Your task to perform on an android device: turn off smart reply in the gmail app Image 0: 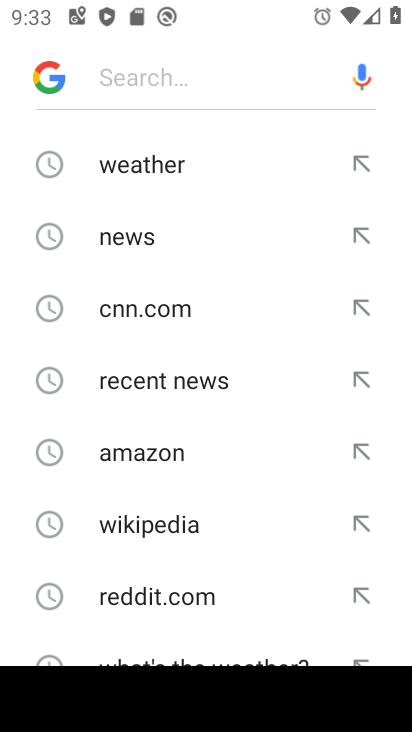
Step 0: press home button
Your task to perform on an android device: turn off smart reply in the gmail app Image 1: 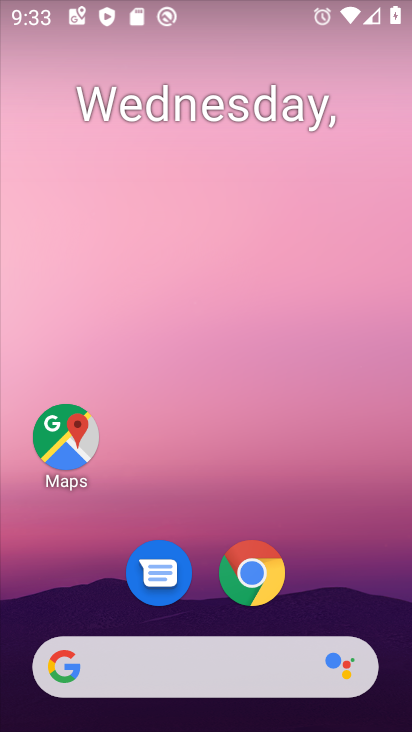
Step 1: drag from (355, 610) to (356, 232)
Your task to perform on an android device: turn off smart reply in the gmail app Image 2: 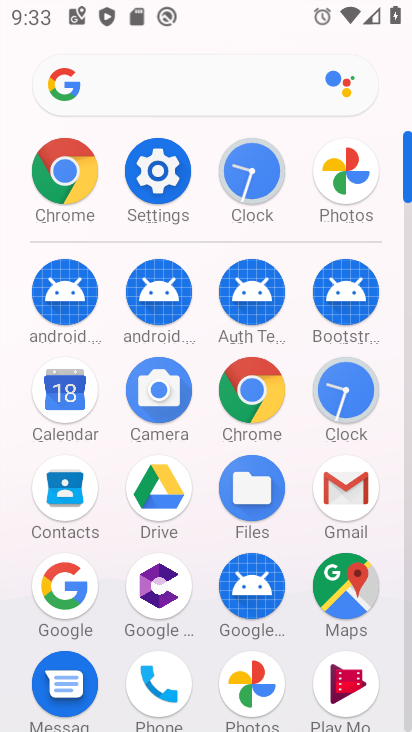
Step 2: drag from (344, 615) to (374, 204)
Your task to perform on an android device: turn off smart reply in the gmail app Image 3: 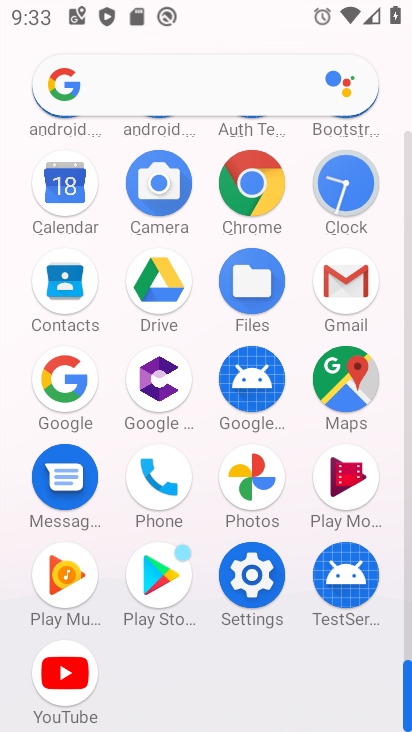
Step 3: click (343, 302)
Your task to perform on an android device: turn off smart reply in the gmail app Image 4: 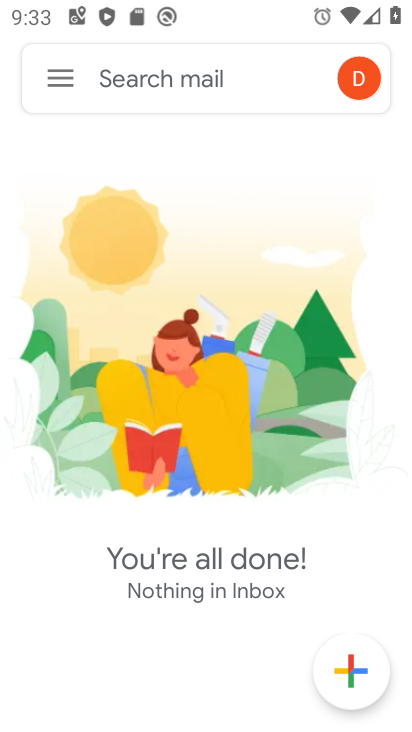
Step 4: click (72, 77)
Your task to perform on an android device: turn off smart reply in the gmail app Image 5: 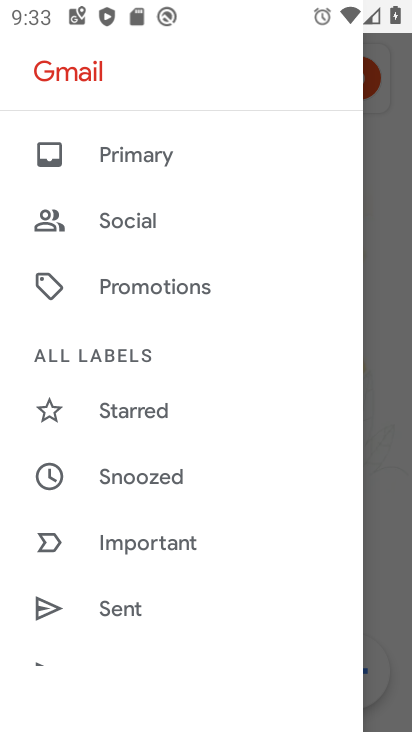
Step 5: drag from (152, 591) to (202, 294)
Your task to perform on an android device: turn off smart reply in the gmail app Image 6: 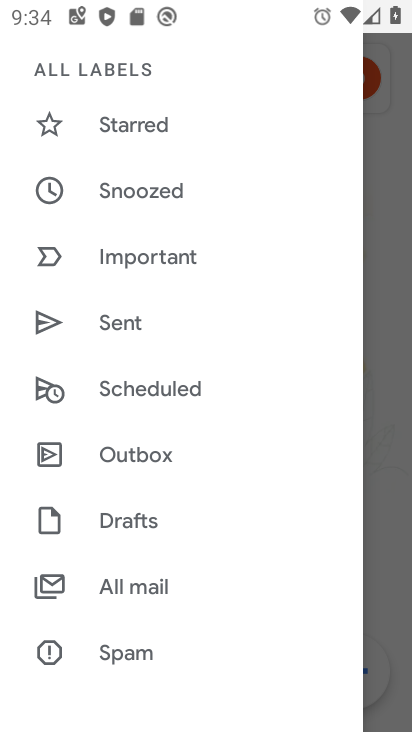
Step 6: drag from (193, 553) to (215, 302)
Your task to perform on an android device: turn off smart reply in the gmail app Image 7: 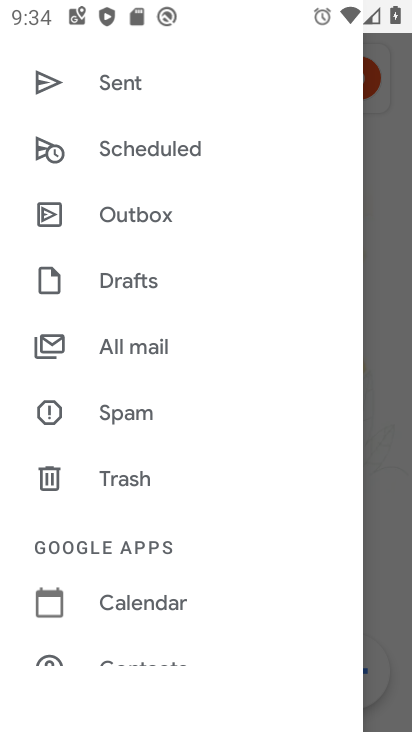
Step 7: drag from (254, 461) to (291, 234)
Your task to perform on an android device: turn off smart reply in the gmail app Image 8: 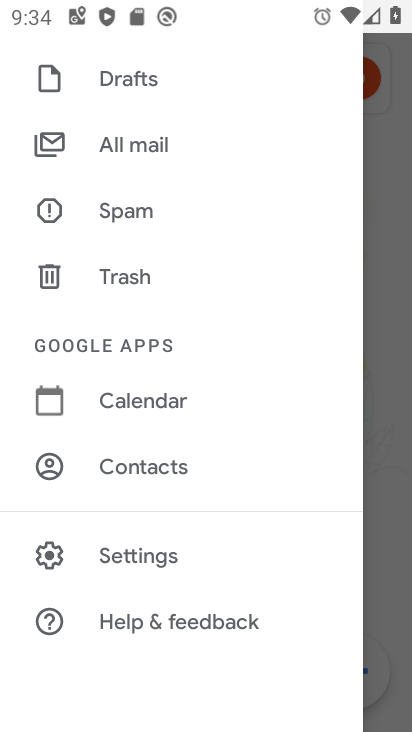
Step 8: click (195, 570)
Your task to perform on an android device: turn off smart reply in the gmail app Image 9: 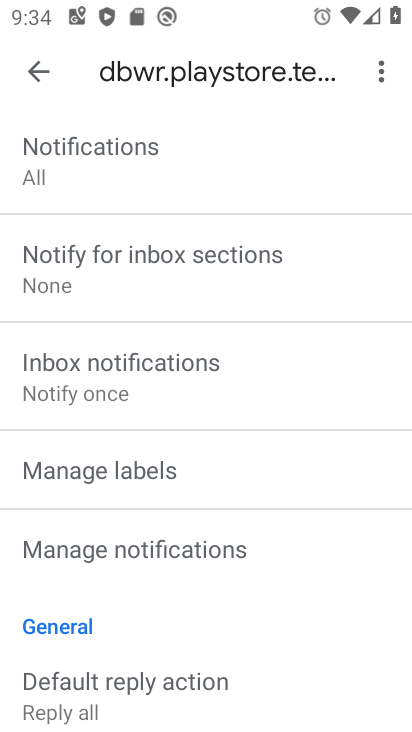
Step 9: task complete